Your task to perform on an android device: show emergency info Image 0: 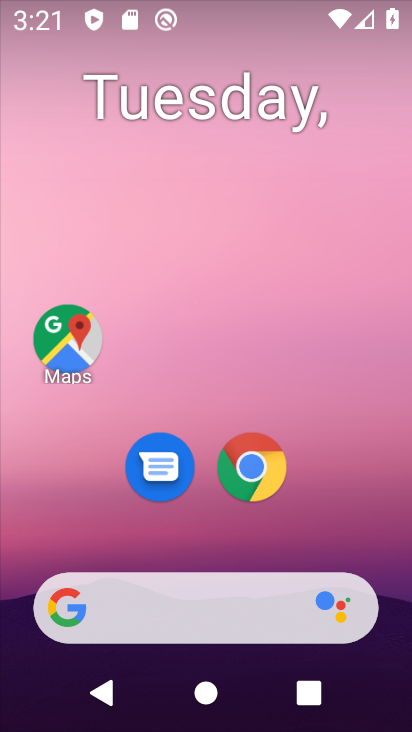
Step 0: drag from (235, 547) to (203, 1)
Your task to perform on an android device: show emergency info Image 1: 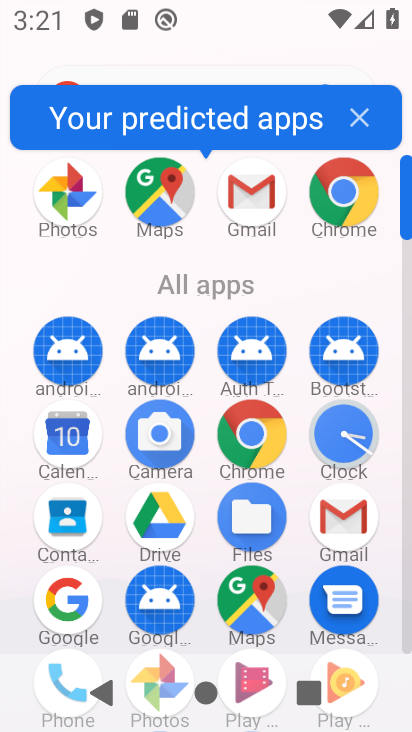
Step 1: drag from (208, 574) to (139, 74)
Your task to perform on an android device: show emergency info Image 2: 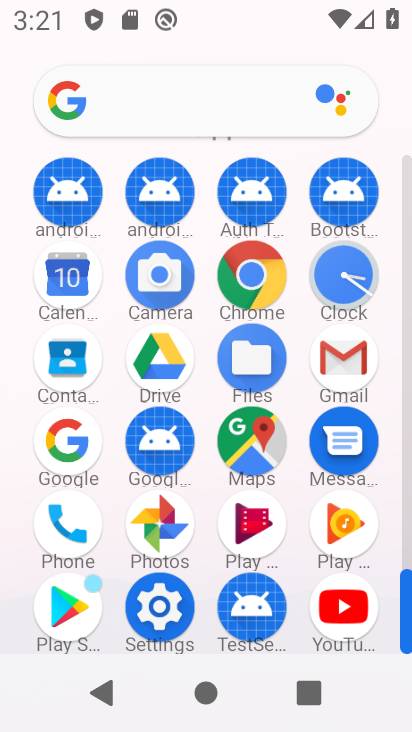
Step 2: click (145, 596)
Your task to perform on an android device: show emergency info Image 3: 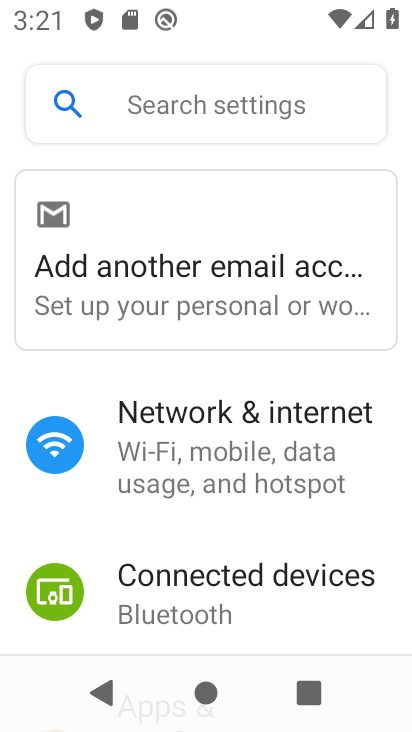
Step 3: drag from (185, 625) to (95, 13)
Your task to perform on an android device: show emergency info Image 4: 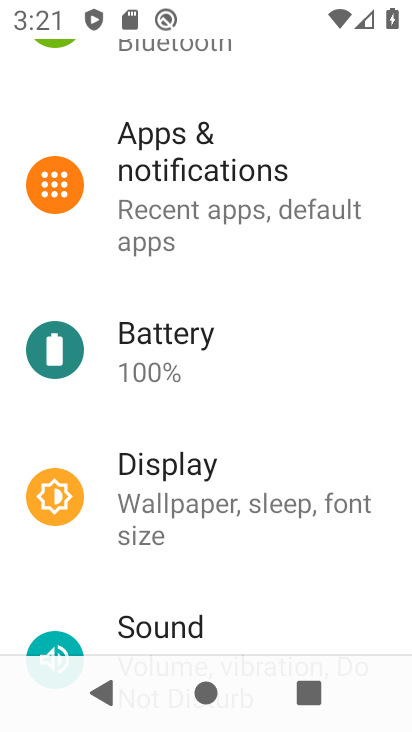
Step 4: drag from (202, 630) to (108, 3)
Your task to perform on an android device: show emergency info Image 5: 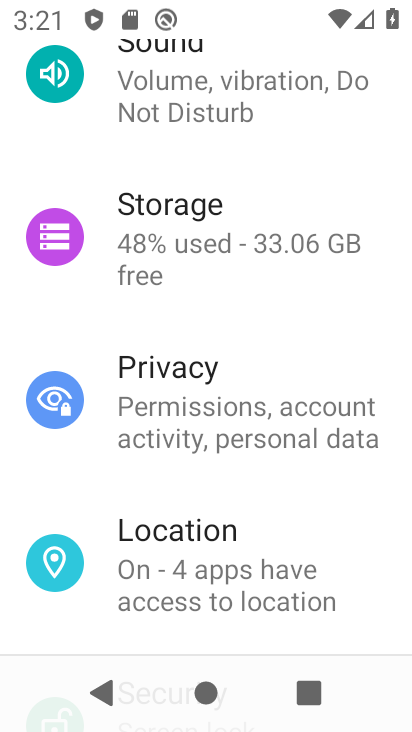
Step 5: drag from (171, 558) to (132, 3)
Your task to perform on an android device: show emergency info Image 6: 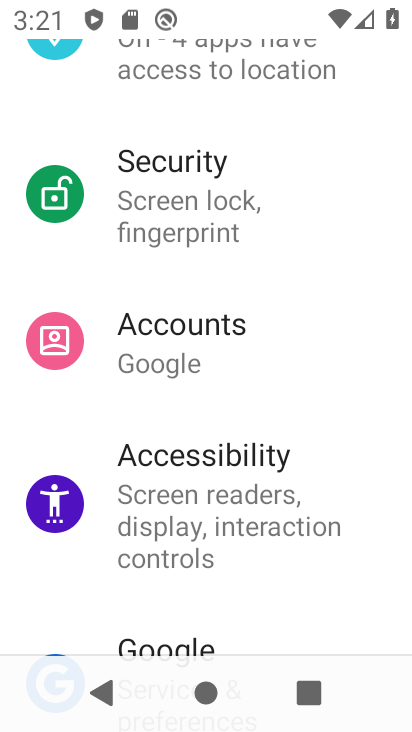
Step 6: drag from (208, 521) to (160, 57)
Your task to perform on an android device: show emergency info Image 7: 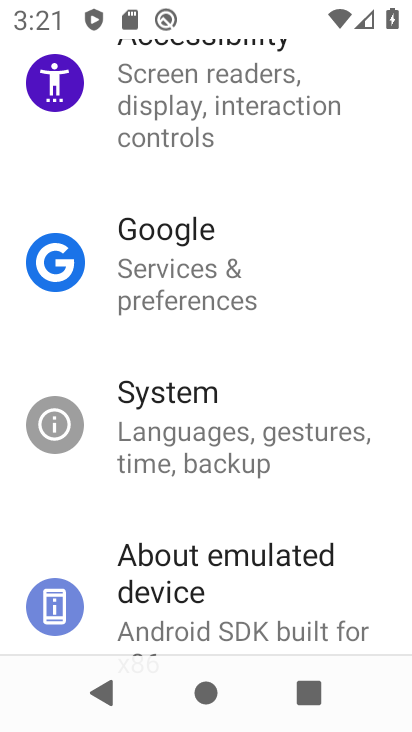
Step 7: drag from (238, 592) to (186, 270)
Your task to perform on an android device: show emergency info Image 8: 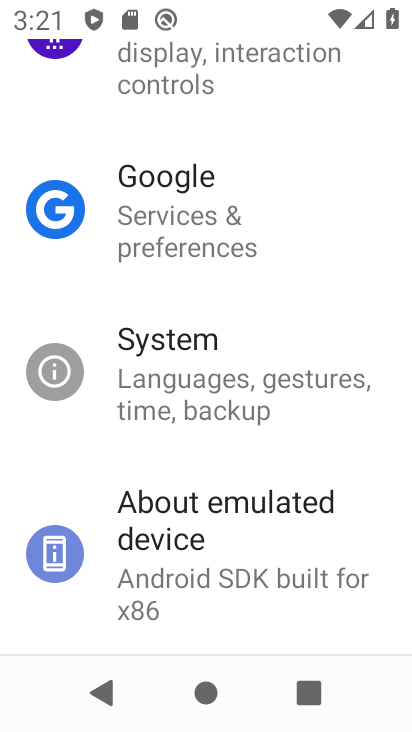
Step 8: click (195, 590)
Your task to perform on an android device: show emergency info Image 9: 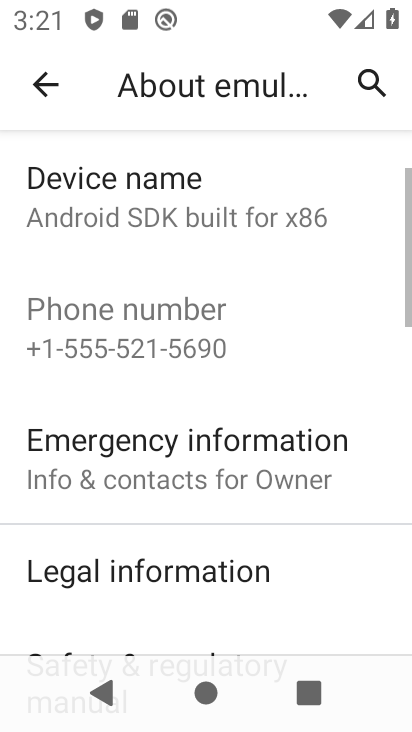
Step 9: click (185, 474)
Your task to perform on an android device: show emergency info Image 10: 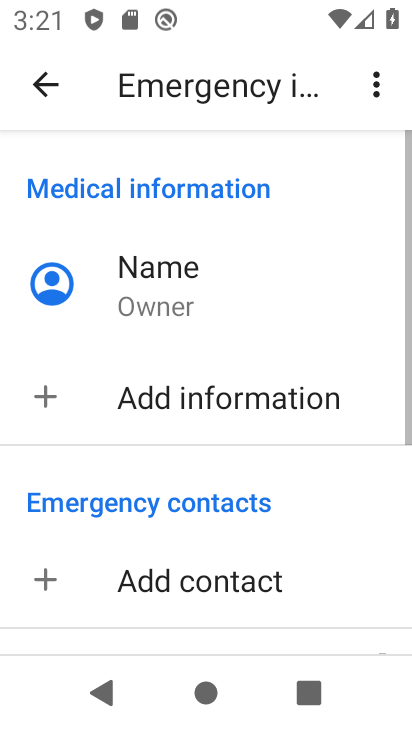
Step 10: task complete